Your task to perform on an android device: Go to location settings Image 0: 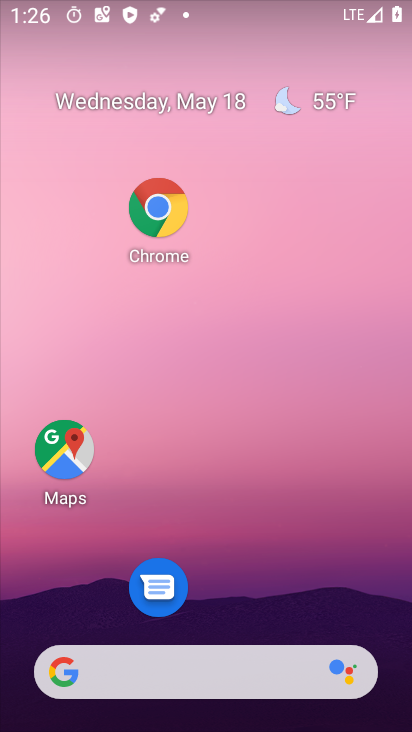
Step 0: drag from (151, 176) to (154, 53)
Your task to perform on an android device: Go to location settings Image 1: 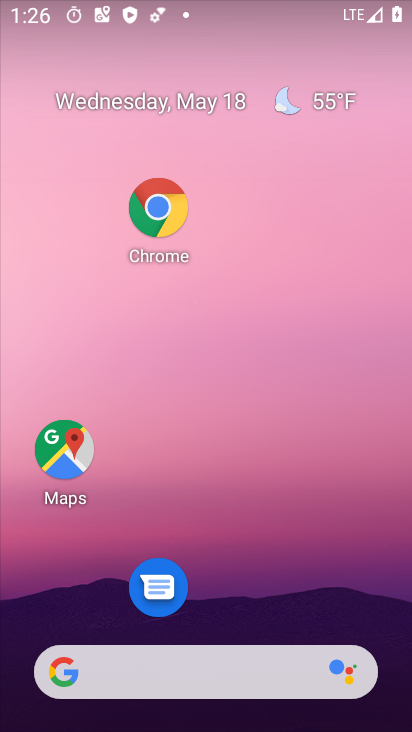
Step 1: drag from (243, 559) to (199, 120)
Your task to perform on an android device: Go to location settings Image 2: 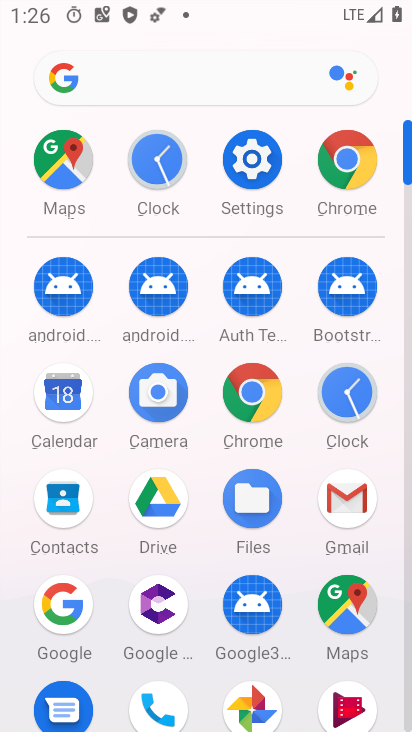
Step 2: click (242, 171)
Your task to perform on an android device: Go to location settings Image 3: 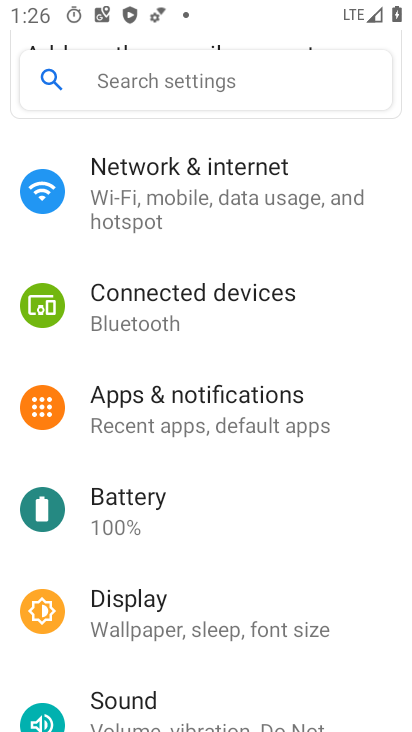
Step 3: drag from (169, 651) to (209, 219)
Your task to perform on an android device: Go to location settings Image 4: 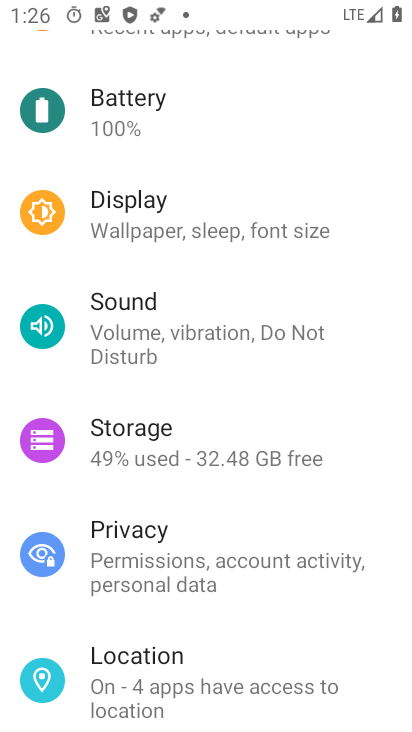
Step 4: click (141, 687)
Your task to perform on an android device: Go to location settings Image 5: 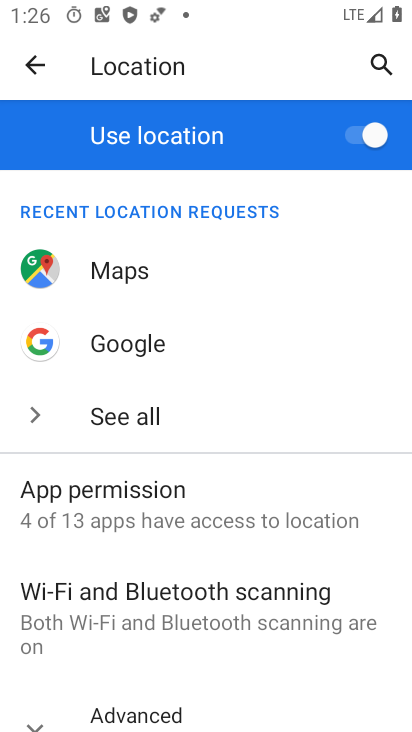
Step 5: task complete